Your task to perform on an android device: refresh tabs in the chrome app Image 0: 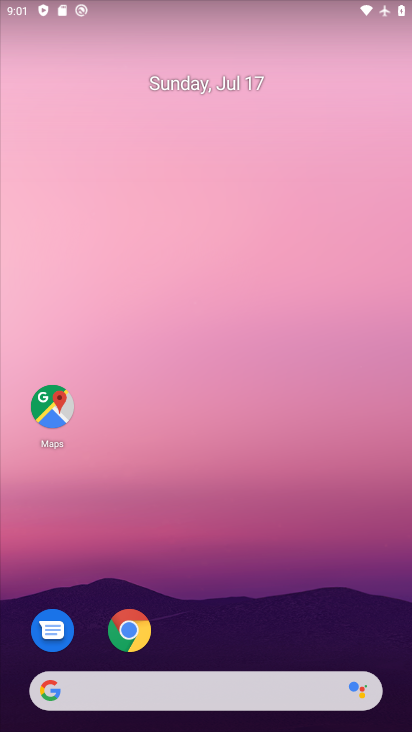
Step 0: click (142, 623)
Your task to perform on an android device: refresh tabs in the chrome app Image 1: 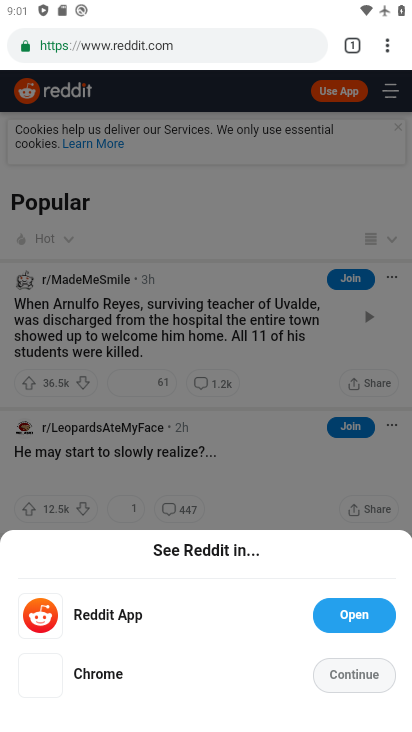
Step 1: click (400, 35)
Your task to perform on an android device: refresh tabs in the chrome app Image 2: 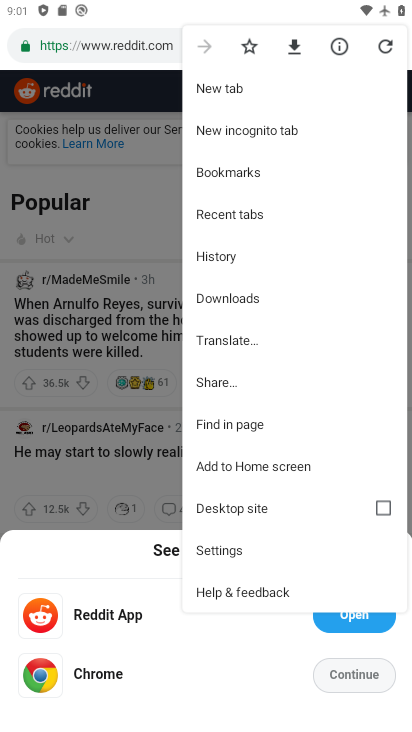
Step 2: click (371, 54)
Your task to perform on an android device: refresh tabs in the chrome app Image 3: 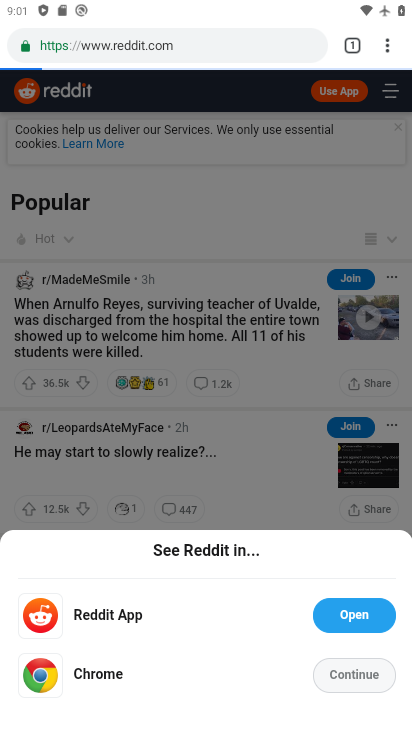
Step 3: task complete